Your task to perform on an android device: Is it going to rain today? Image 0: 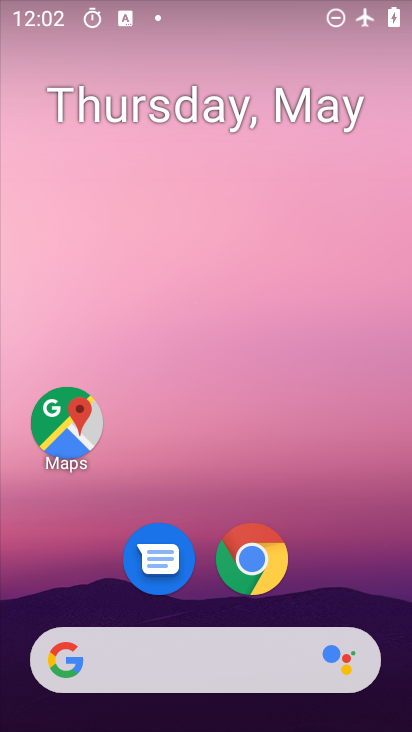
Step 0: drag from (175, 661) to (319, 13)
Your task to perform on an android device: Is it going to rain today? Image 1: 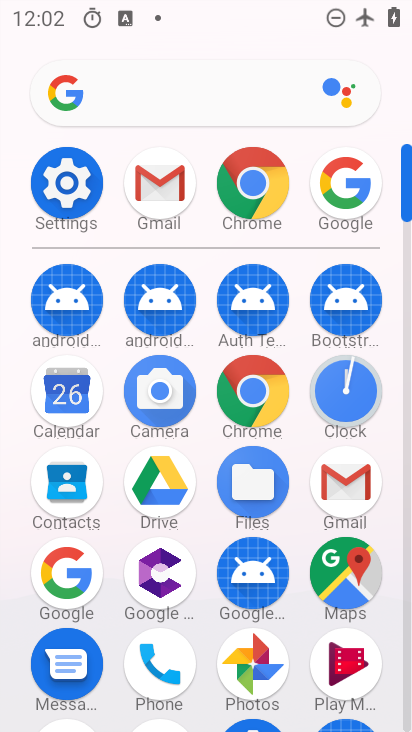
Step 1: drag from (166, 510) to (204, 204)
Your task to perform on an android device: Is it going to rain today? Image 2: 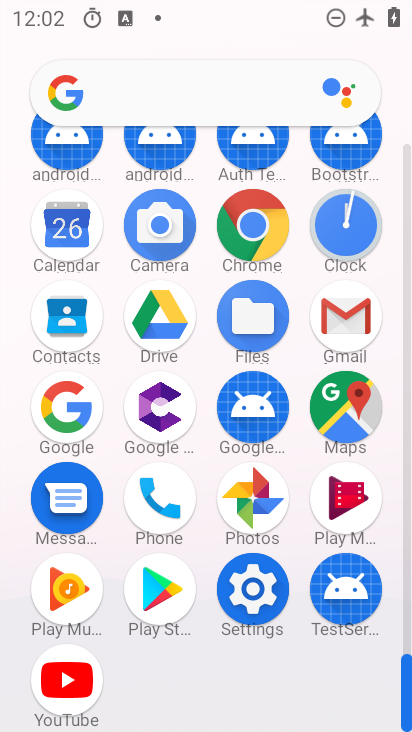
Step 2: click (69, 409)
Your task to perform on an android device: Is it going to rain today? Image 3: 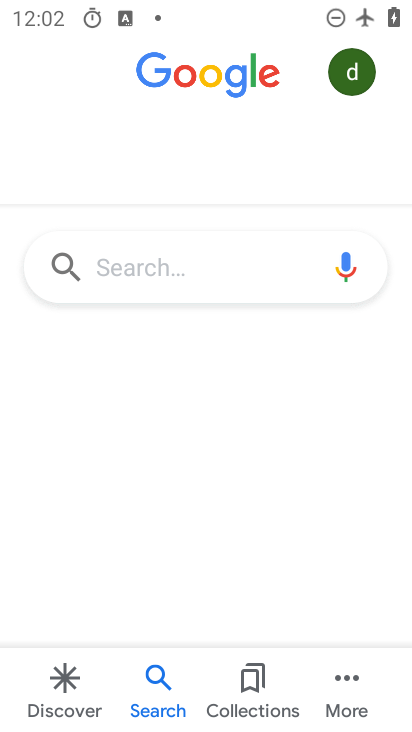
Step 3: click (147, 283)
Your task to perform on an android device: Is it going to rain today? Image 4: 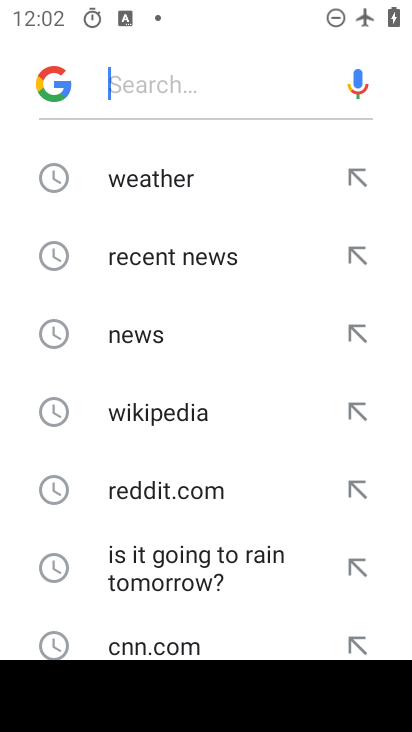
Step 4: click (171, 185)
Your task to perform on an android device: Is it going to rain today? Image 5: 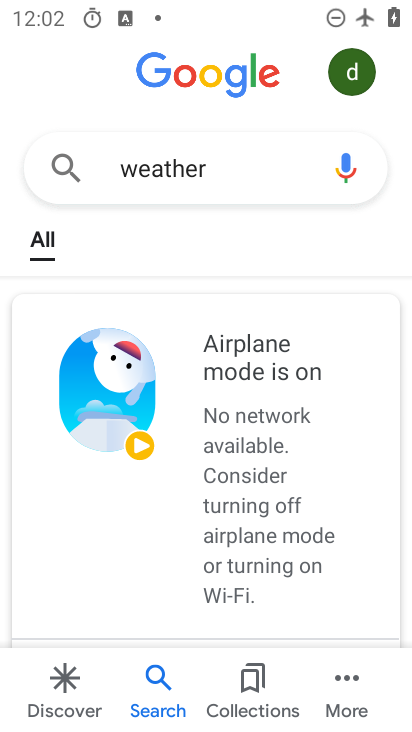
Step 5: task complete